Your task to perform on an android device: Go to Maps Image 0: 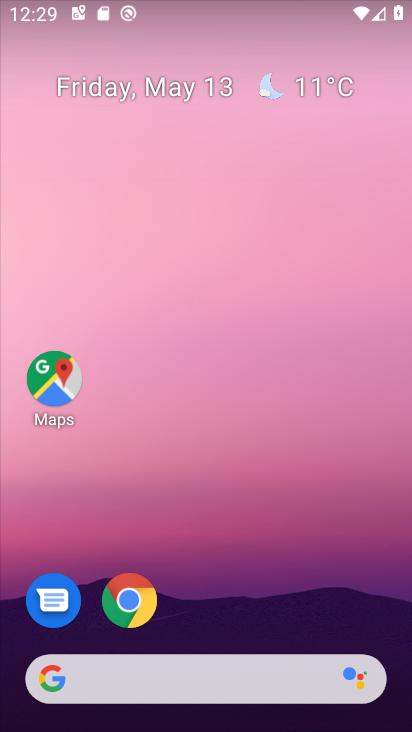
Step 0: click (73, 381)
Your task to perform on an android device: Go to Maps Image 1: 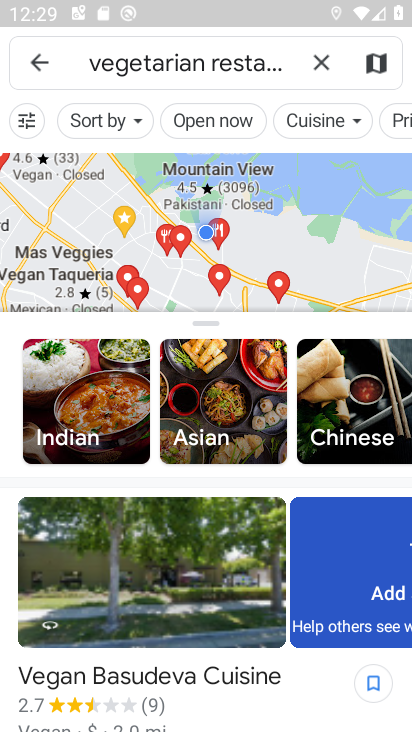
Step 1: task complete